Your task to perform on an android device: turn on javascript in the chrome app Image 0: 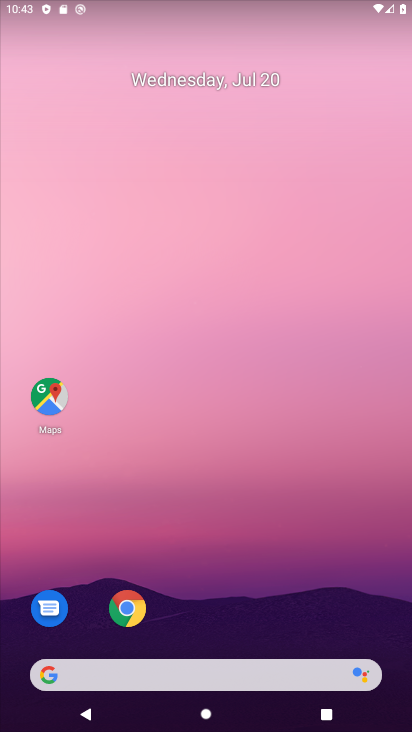
Step 0: drag from (357, 633) to (216, 70)
Your task to perform on an android device: turn on javascript in the chrome app Image 1: 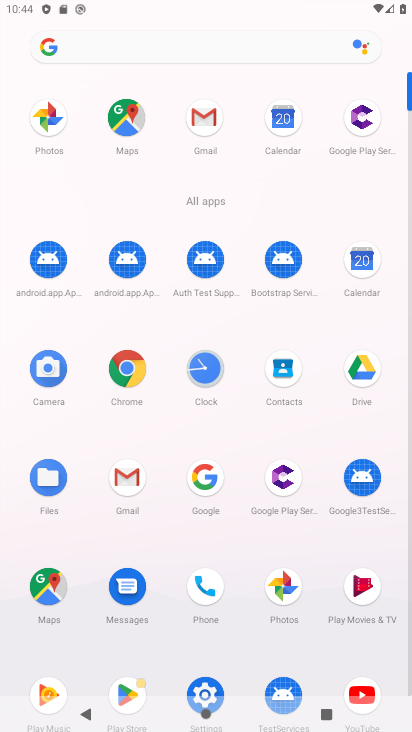
Step 1: click (127, 380)
Your task to perform on an android device: turn on javascript in the chrome app Image 2: 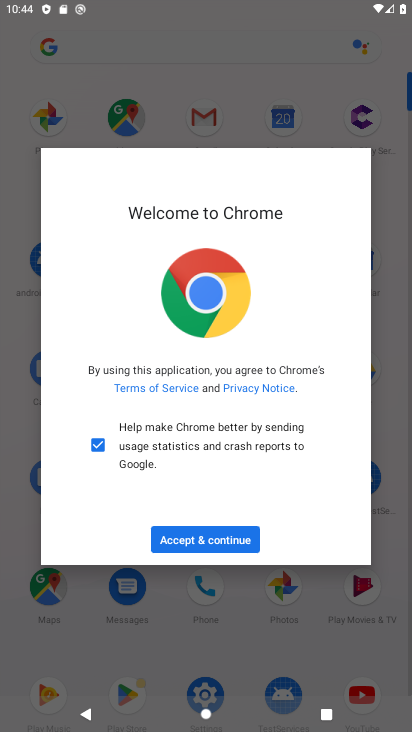
Step 2: click (196, 544)
Your task to perform on an android device: turn on javascript in the chrome app Image 3: 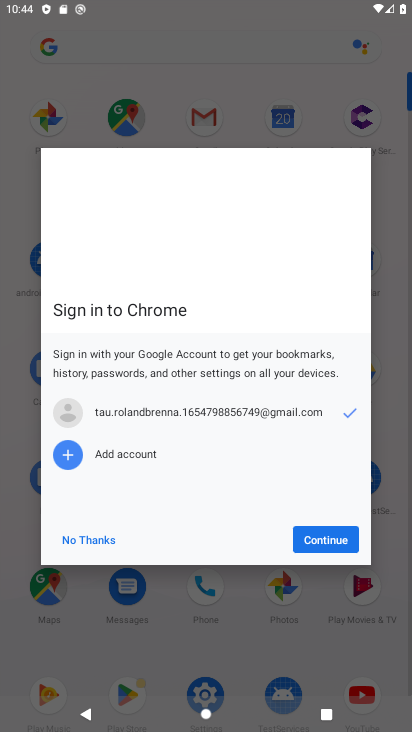
Step 3: click (333, 540)
Your task to perform on an android device: turn on javascript in the chrome app Image 4: 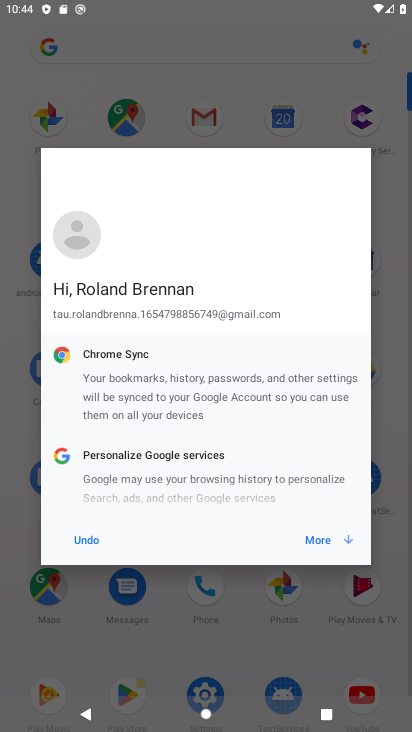
Step 4: click (333, 540)
Your task to perform on an android device: turn on javascript in the chrome app Image 5: 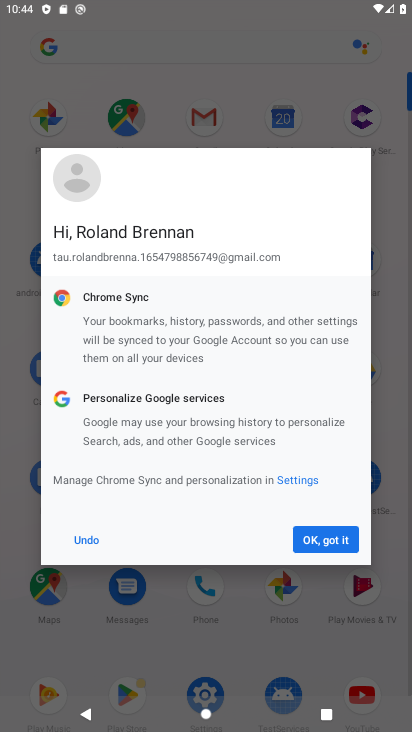
Step 5: click (333, 540)
Your task to perform on an android device: turn on javascript in the chrome app Image 6: 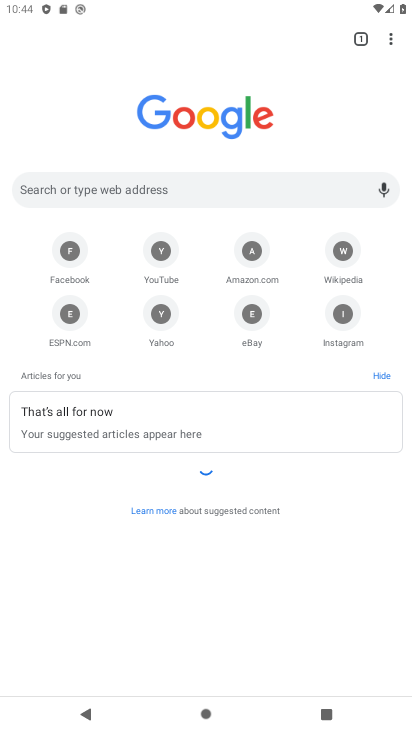
Step 6: click (389, 35)
Your task to perform on an android device: turn on javascript in the chrome app Image 7: 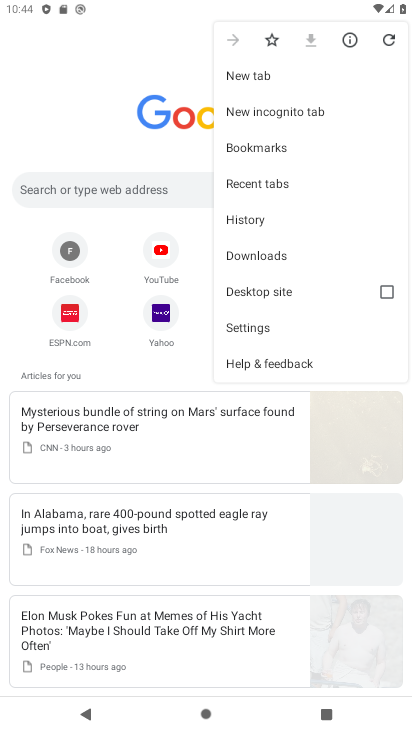
Step 7: click (262, 329)
Your task to perform on an android device: turn on javascript in the chrome app Image 8: 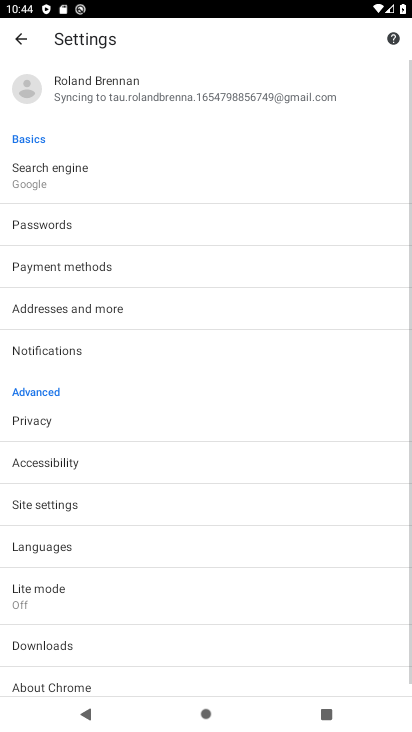
Step 8: click (73, 508)
Your task to perform on an android device: turn on javascript in the chrome app Image 9: 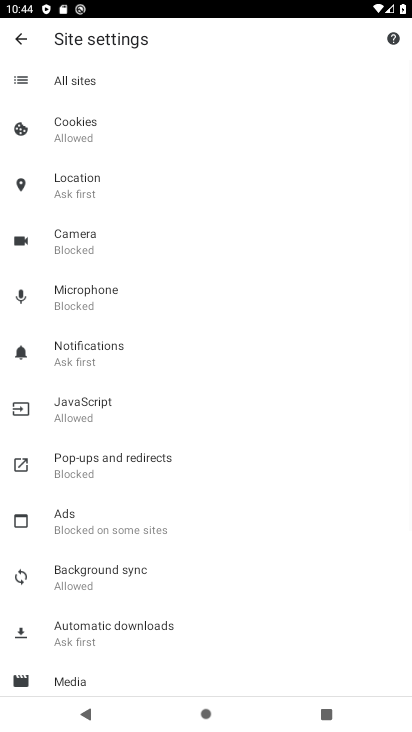
Step 9: click (113, 404)
Your task to perform on an android device: turn on javascript in the chrome app Image 10: 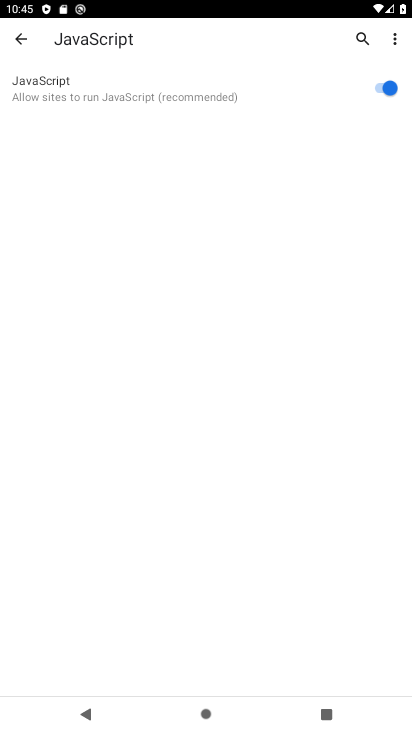
Step 10: task complete